Your task to perform on an android device: Open Reddit.com Image 0: 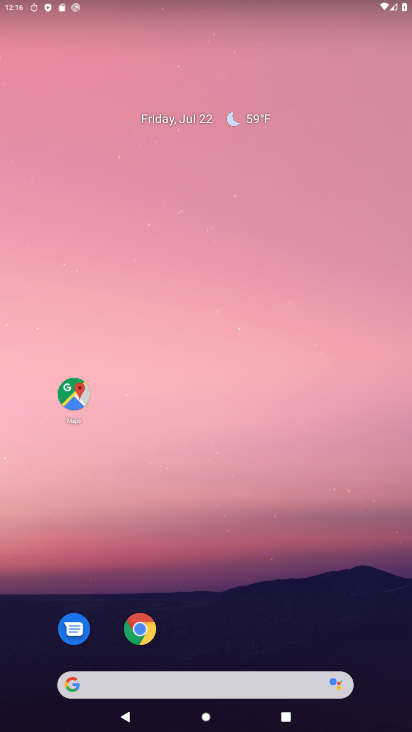
Step 0: drag from (295, 692) to (339, 111)
Your task to perform on an android device: Open Reddit.com Image 1: 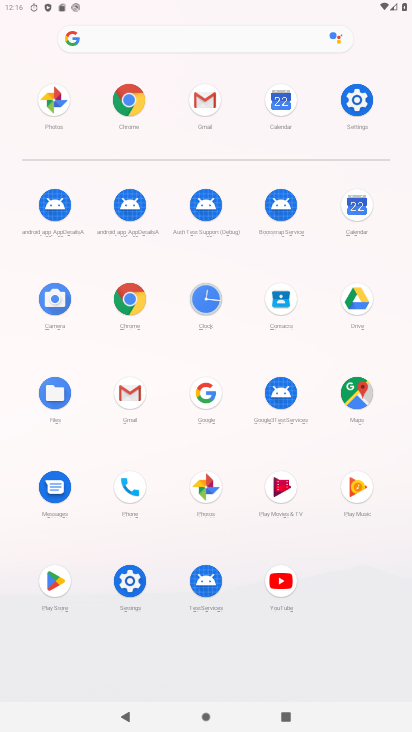
Step 1: click (137, 313)
Your task to perform on an android device: Open Reddit.com Image 2: 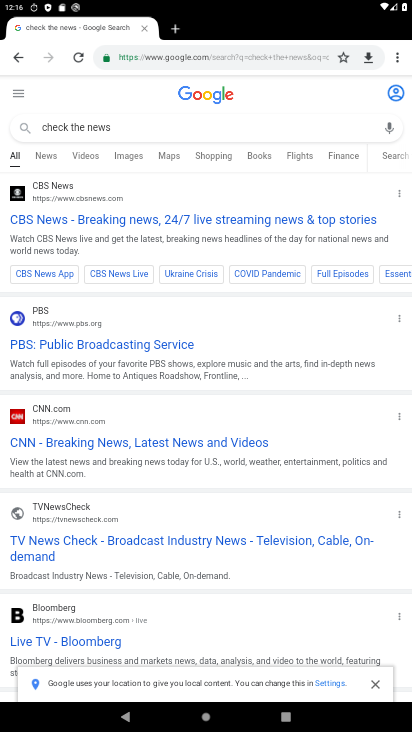
Step 2: click (203, 60)
Your task to perform on an android device: Open Reddit.com Image 3: 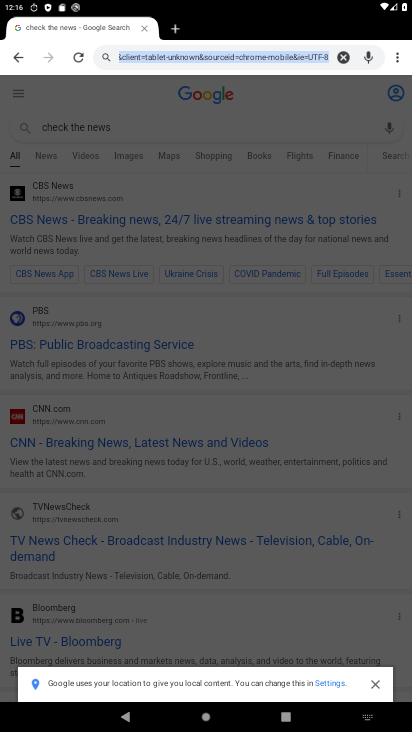
Step 3: type "reddit.com"
Your task to perform on an android device: Open Reddit.com Image 4: 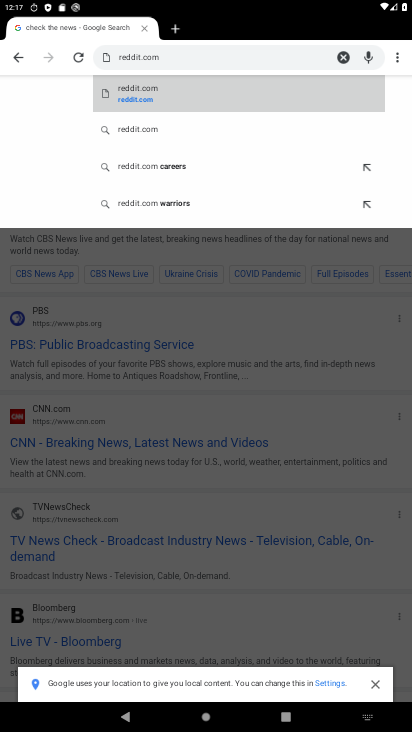
Step 4: click (192, 103)
Your task to perform on an android device: Open Reddit.com Image 5: 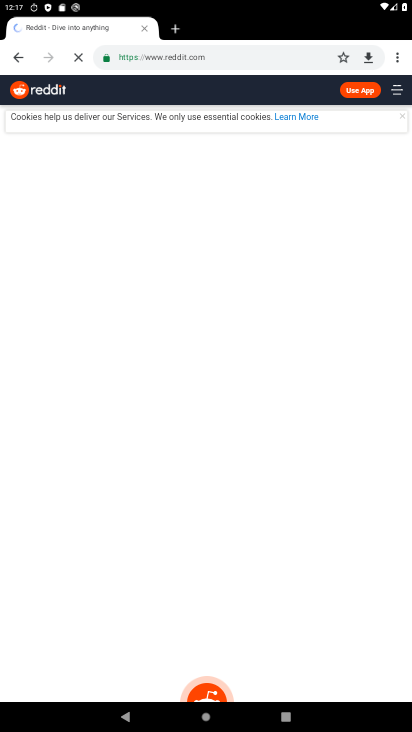
Step 5: task complete